Your task to perform on an android device: delete the emails in spam in the gmail app Image 0: 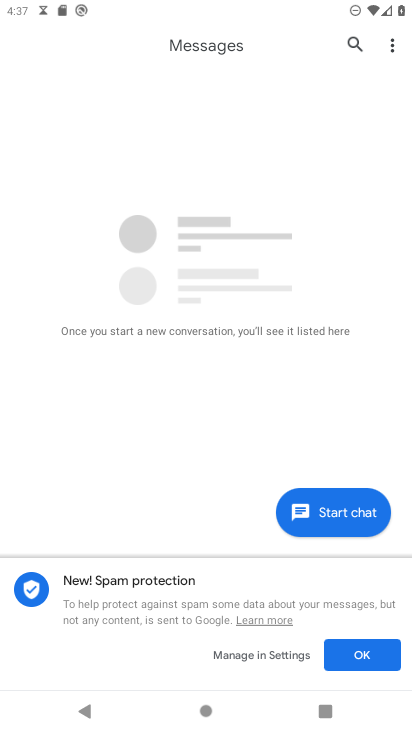
Step 0: press back button
Your task to perform on an android device: delete the emails in spam in the gmail app Image 1: 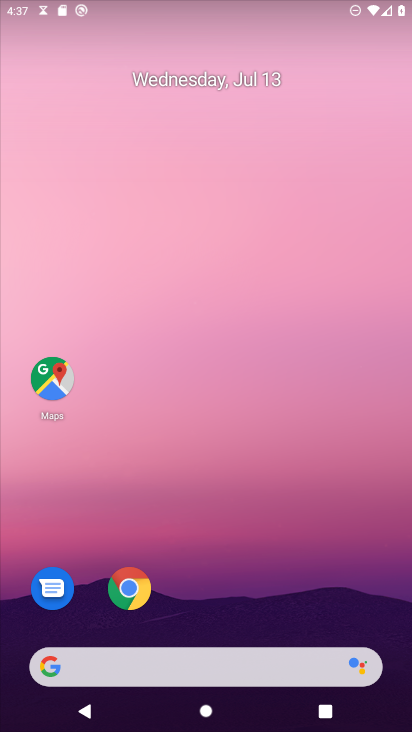
Step 1: drag from (256, 639) to (160, 160)
Your task to perform on an android device: delete the emails in spam in the gmail app Image 2: 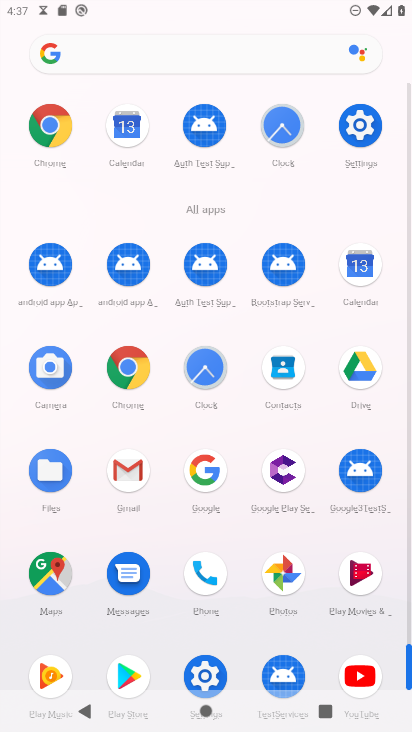
Step 2: click (140, 468)
Your task to perform on an android device: delete the emails in spam in the gmail app Image 3: 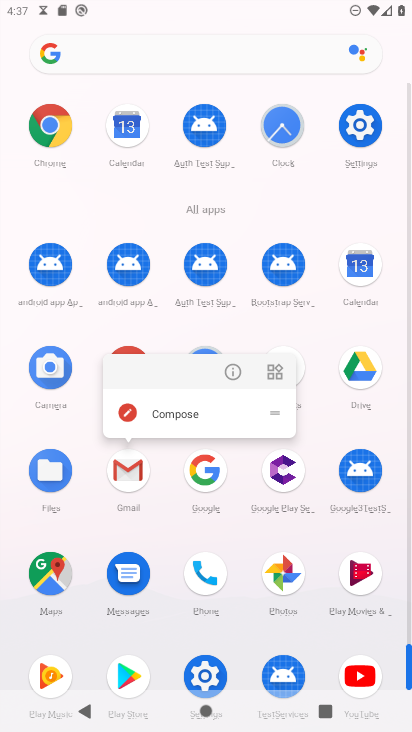
Step 3: click (128, 470)
Your task to perform on an android device: delete the emails in spam in the gmail app Image 4: 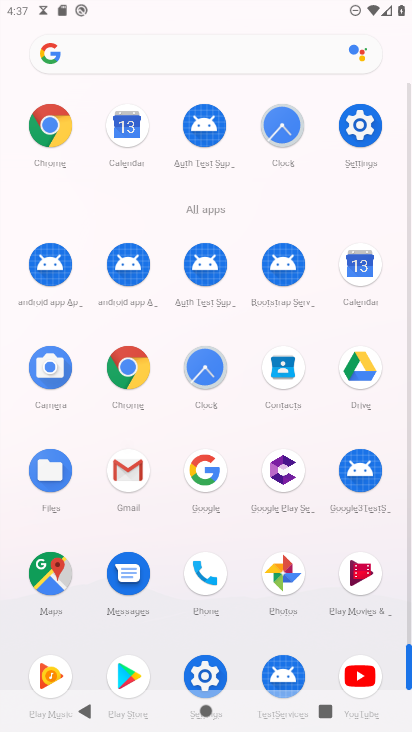
Step 4: click (127, 471)
Your task to perform on an android device: delete the emails in spam in the gmail app Image 5: 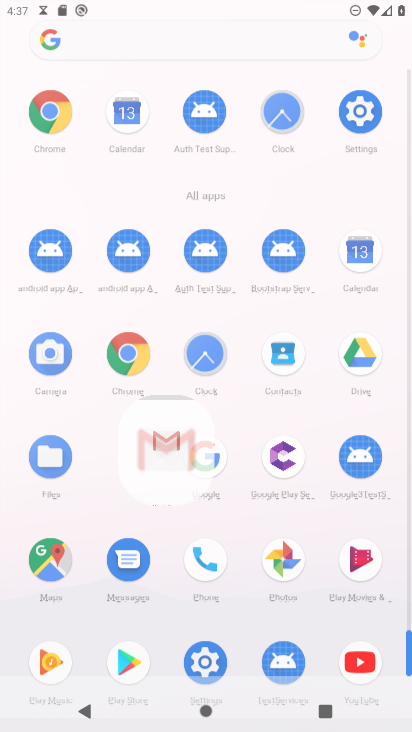
Step 5: click (130, 469)
Your task to perform on an android device: delete the emails in spam in the gmail app Image 6: 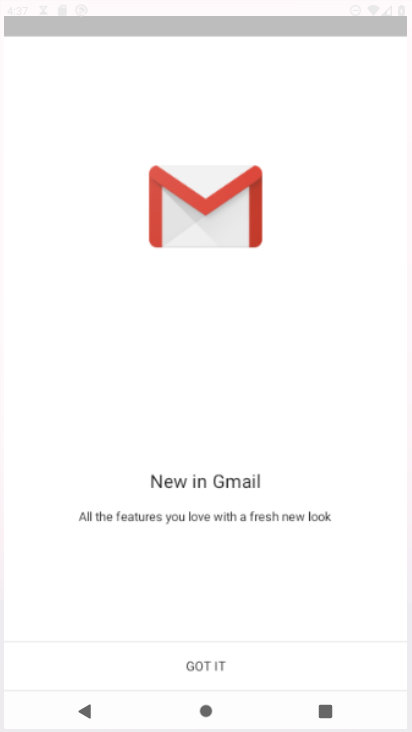
Step 6: click (133, 464)
Your task to perform on an android device: delete the emails in spam in the gmail app Image 7: 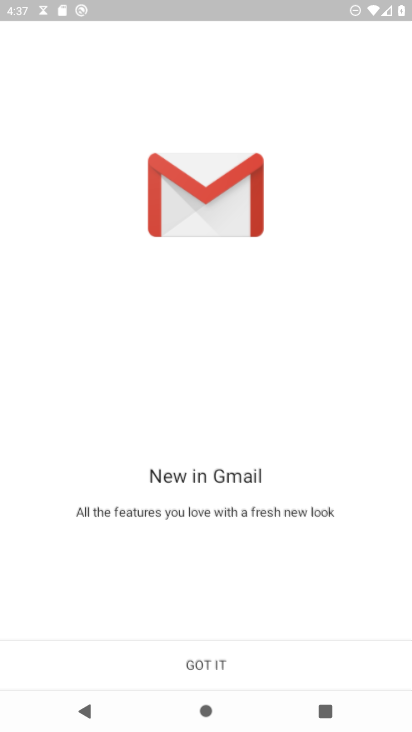
Step 7: click (135, 462)
Your task to perform on an android device: delete the emails in spam in the gmail app Image 8: 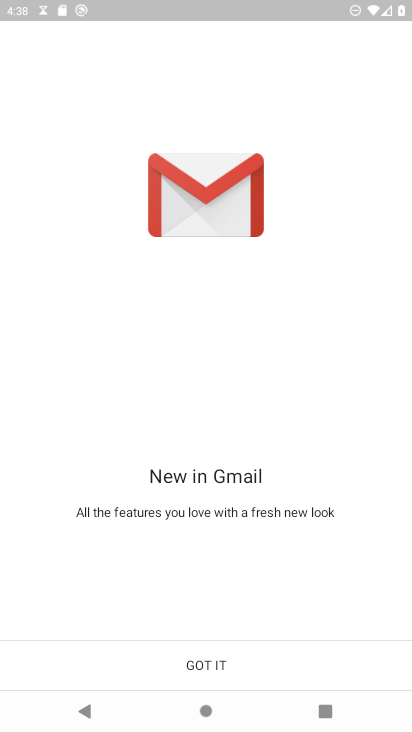
Step 8: click (205, 665)
Your task to perform on an android device: delete the emails in spam in the gmail app Image 9: 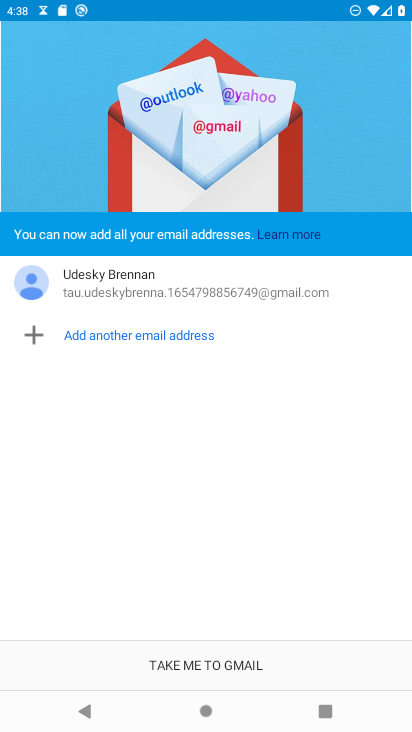
Step 9: click (196, 664)
Your task to perform on an android device: delete the emails in spam in the gmail app Image 10: 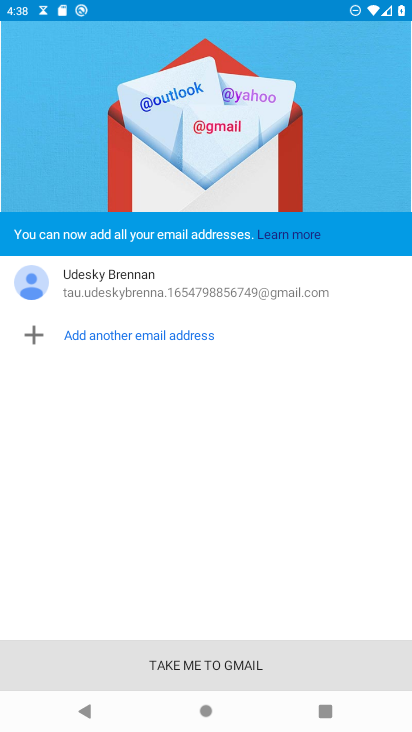
Step 10: click (200, 665)
Your task to perform on an android device: delete the emails in spam in the gmail app Image 11: 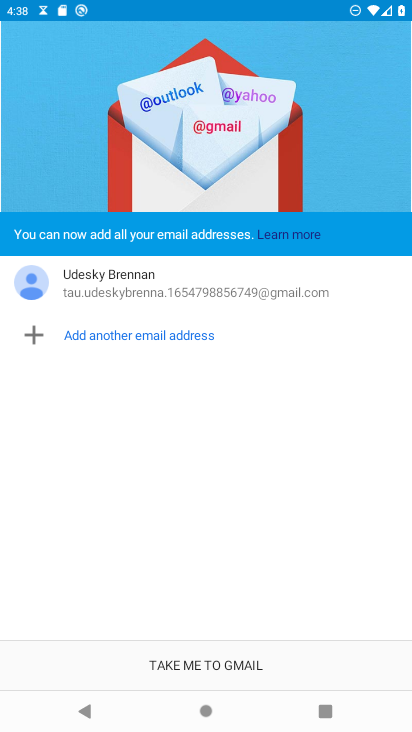
Step 11: click (203, 664)
Your task to perform on an android device: delete the emails in spam in the gmail app Image 12: 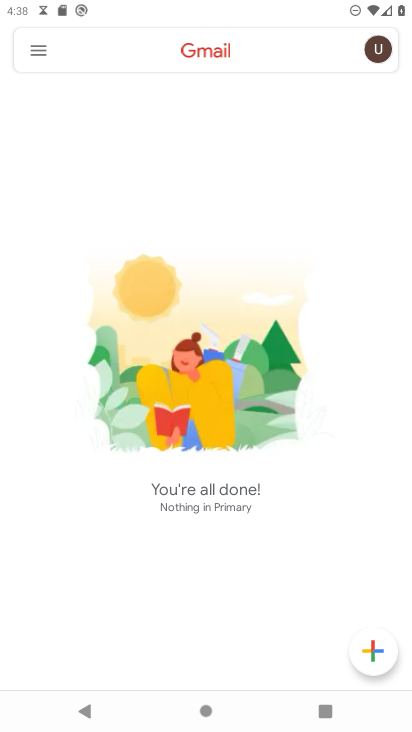
Step 12: drag from (34, 45) to (40, 174)
Your task to perform on an android device: delete the emails in spam in the gmail app Image 13: 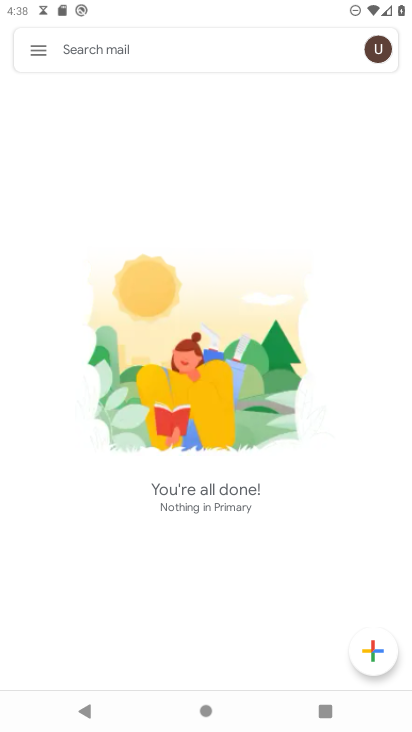
Step 13: drag from (33, 45) to (34, 252)
Your task to perform on an android device: delete the emails in spam in the gmail app Image 14: 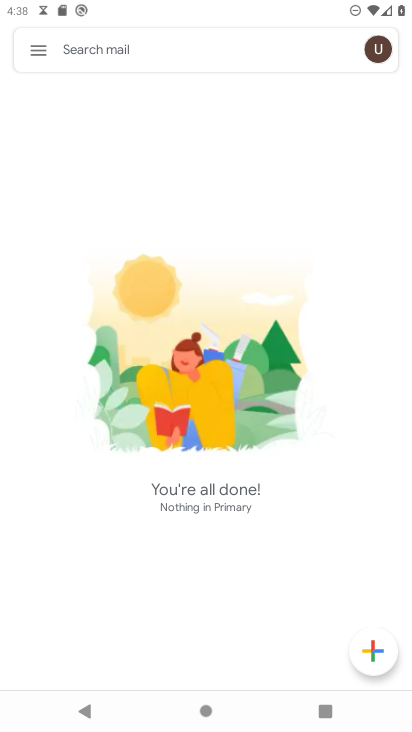
Step 14: drag from (43, 49) to (66, 304)
Your task to perform on an android device: delete the emails in spam in the gmail app Image 15: 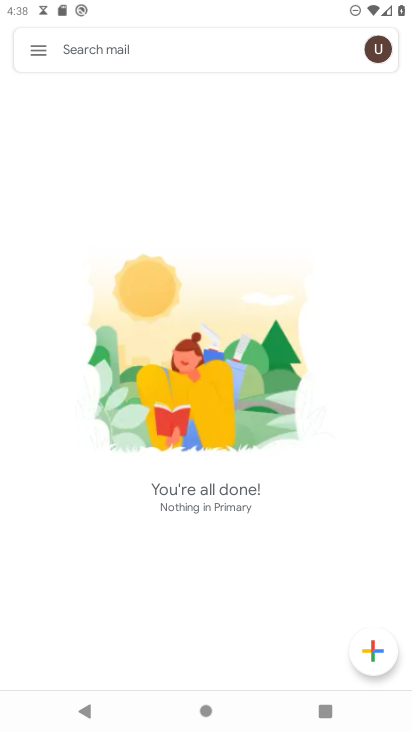
Step 15: click (39, 45)
Your task to perform on an android device: delete the emails in spam in the gmail app Image 16: 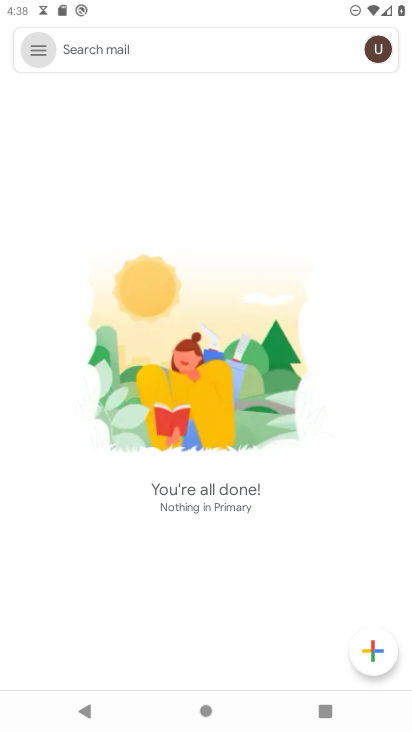
Step 16: click (39, 44)
Your task to perform on an android device: delete the emails in spam in the gmail app Image 17: 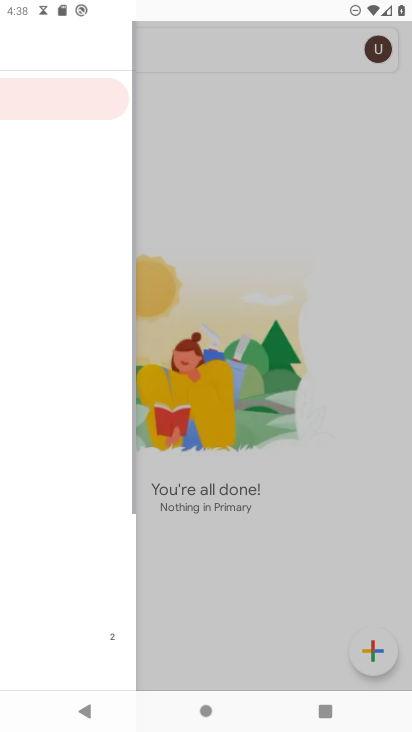
Step 17: drag from (40, 44) to (19, 595)
Your task to perform on an android device: delete the emails in spam in the gmail app Image 18: 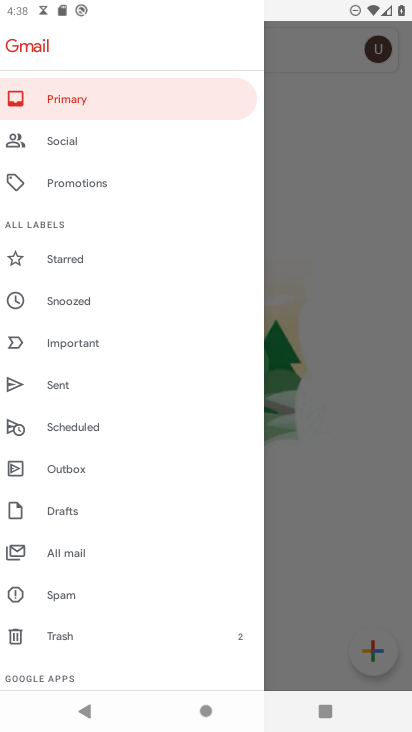
Step 18: click (22, 592)
Your task to perform on an android device: delete the emails in spam in the gmail app Image 19: 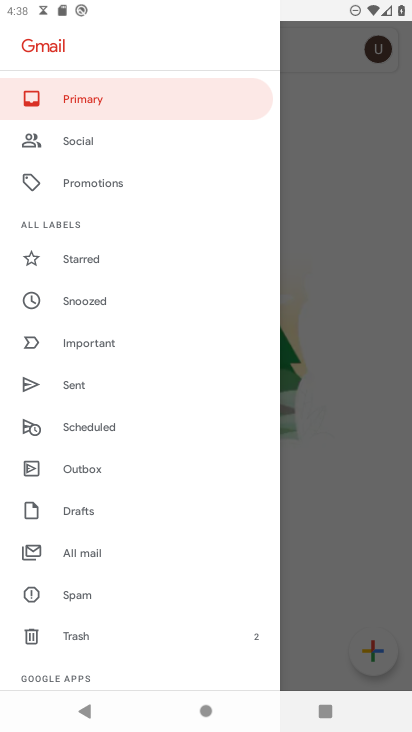
Step 19: click (23, 591)
Your task to perform on an android device: delete the emails in spam in the gmail app Image 20: 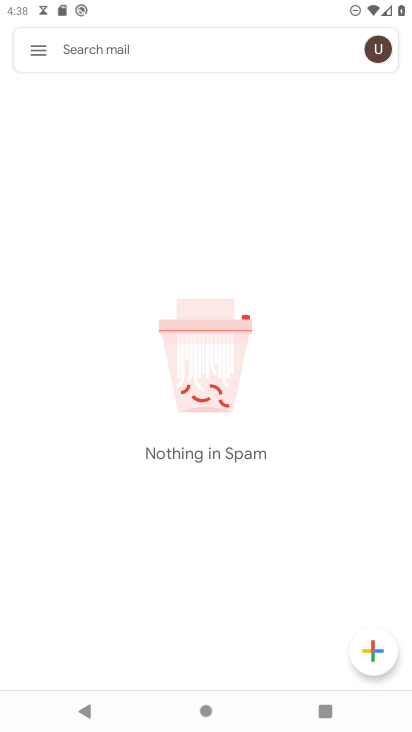
Step 20: task complete